Your task to perform on an android device: Show me productivity apps on the Play Store Image 0: 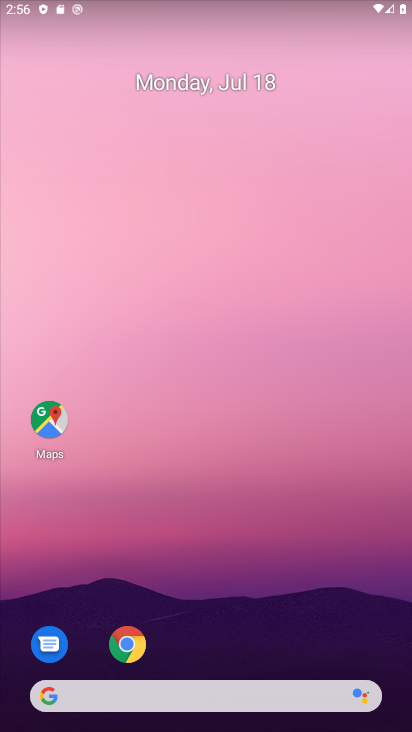
Step 0: drag from (375, 605) to (340, 94)
Your task to perform on an android device: Show me productivity apps on the Play Store Image 1: 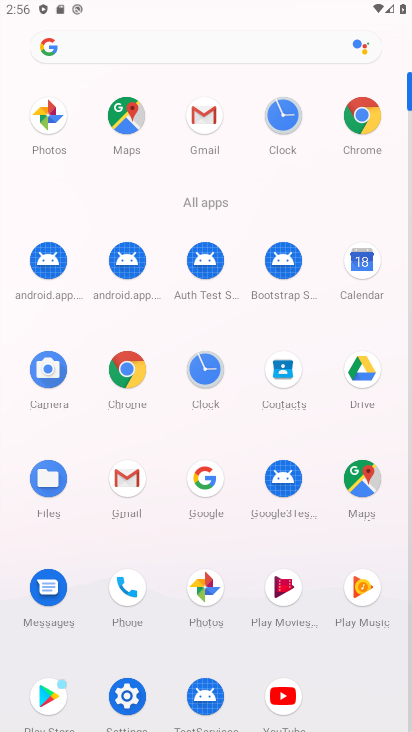
Step 1: click (50, 695)
Your task to perform on an android device: Show me productivity apps on the Play Store Image 2: 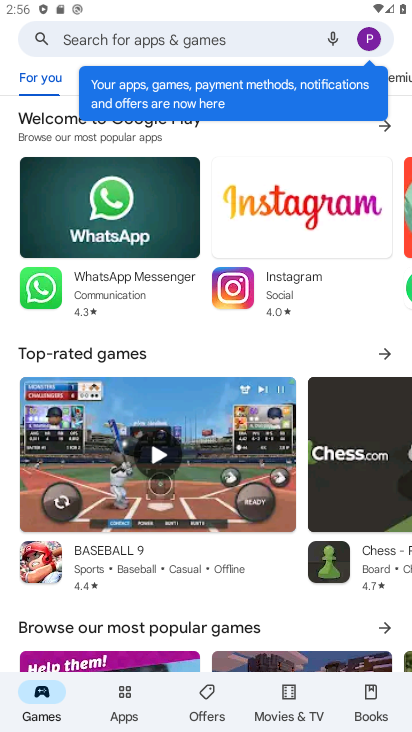
Step 2: click (119, 705)
Your task to perform on an android device: Show me productivity apps on the Play Store Image 3: 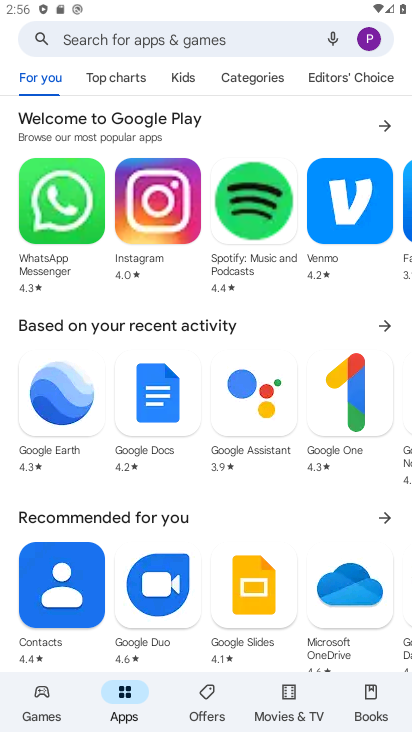
Step 3: click (247, 79)
Your task to perform on an android device: Show me productivity apps on the Play Store Image 4: 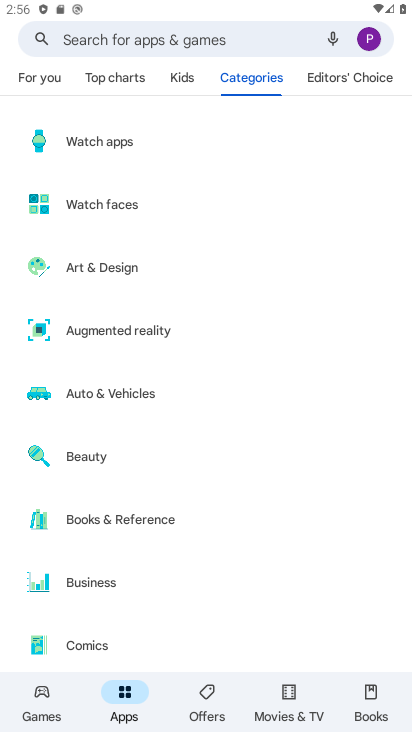
Step 4: drag from (214, 622) to (232, 129)
Your task to perform on an android device: Show me productivity apps on the Play Store Image 5: 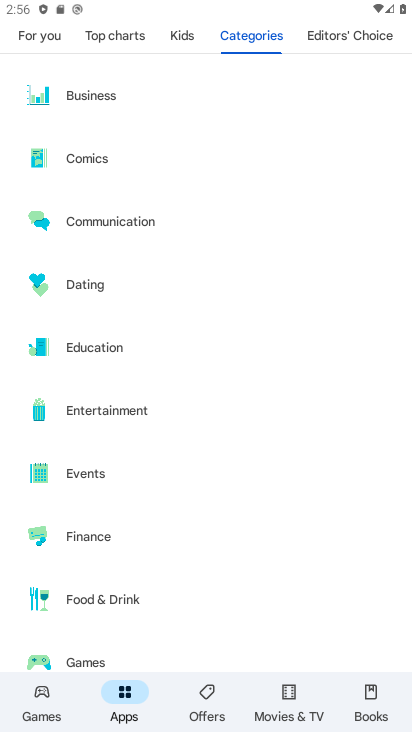
Step 5: drag from (225, 613) to (196, 142)
Your task to perform on an android device: Show me productivity apps on the Play Store Image 6: 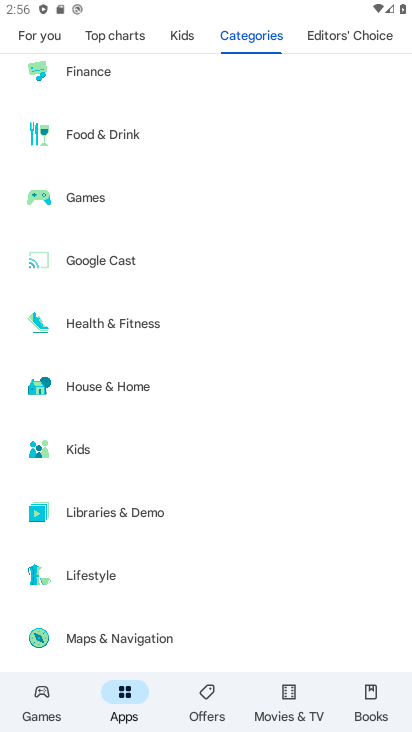
Step 6: drag from (224, 638) to (196, 107)
Your task to perform on an android device: Show me productivity apps on the Play Store Image 7: 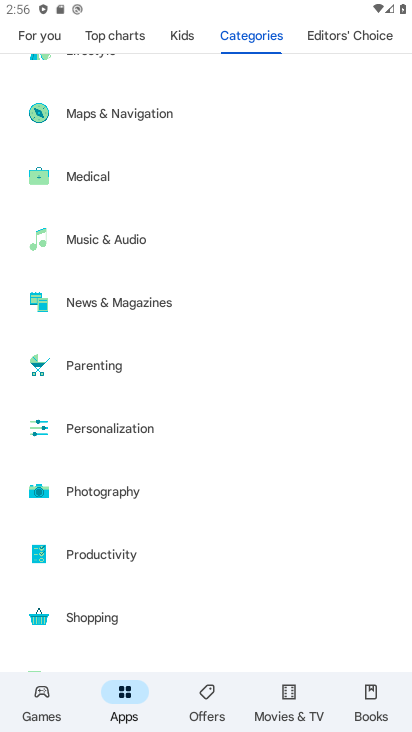
Step 7: click (72, 552)
Your task to perform on an android device: Show me productivity apps on the Play Store Image 8: 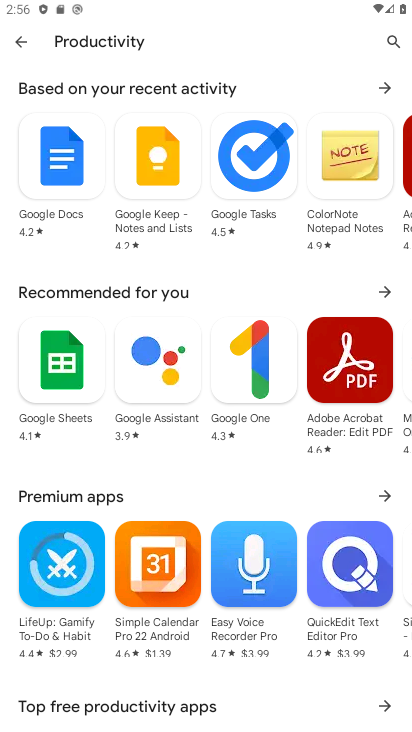
Step 8: drag from (255, 480) to (233, 54)
Your task to perform on an android device: Show me productivity apps on the Play Store Image 9: 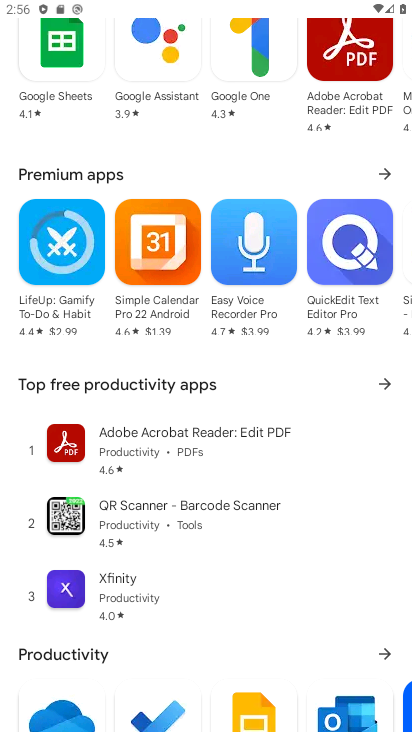
Step 9: click (384, 650)
Your task to perform on an android device: Show me productivity apps on the Play Store Image 10: 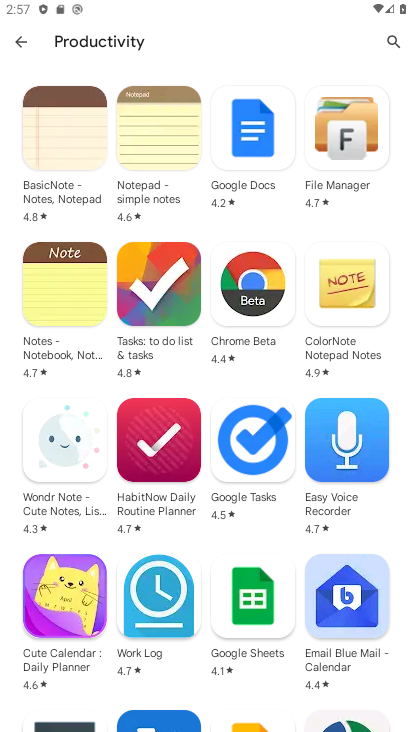
Step 10: task complete